Your task to perform on an android device: turn on notifications settings in the gmail app Image 0: 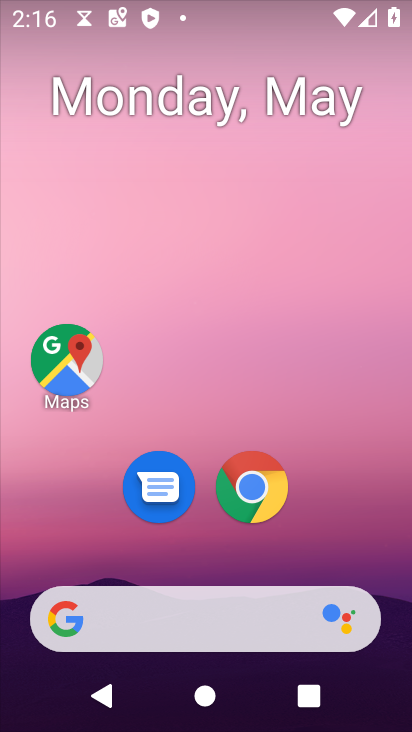
Step 0: click (349, 134)
Your task to perform on an android device: turn on notifications settings in the gmail app Image 1: 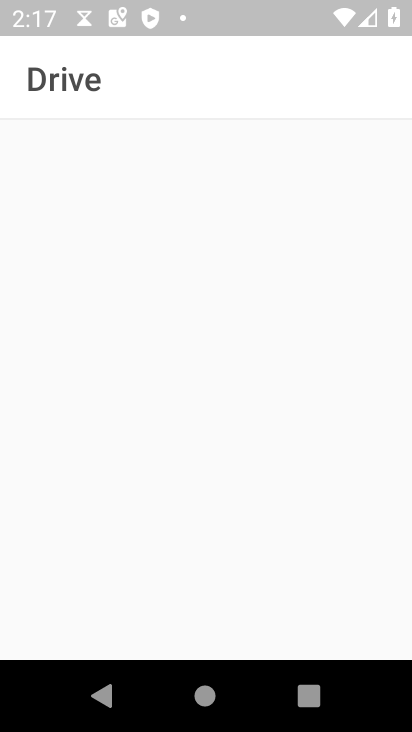
Step 1: press home button
Your task to perform on an android device: turn on notifications settings in the gmail app Image 2: 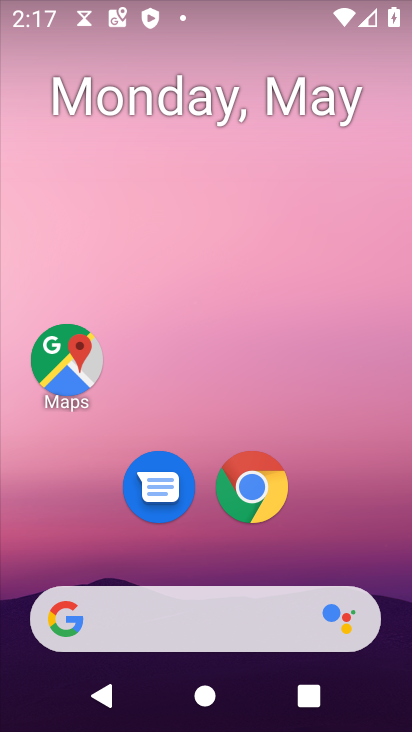
Step 2: drag from (368, 470) to (348, 152)
Your task to perform on an android device: turn on notifications settings in the gmail app Image 3: 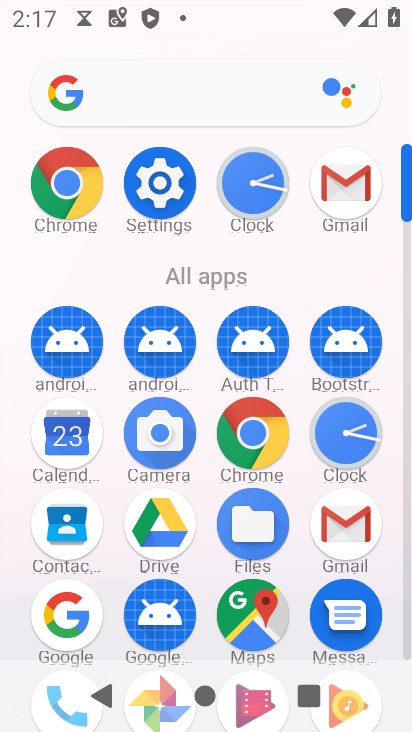
Step 3: click (349, 177)
Your task to perform on an android device: turn on notifications settings in the gmail app Image 4: 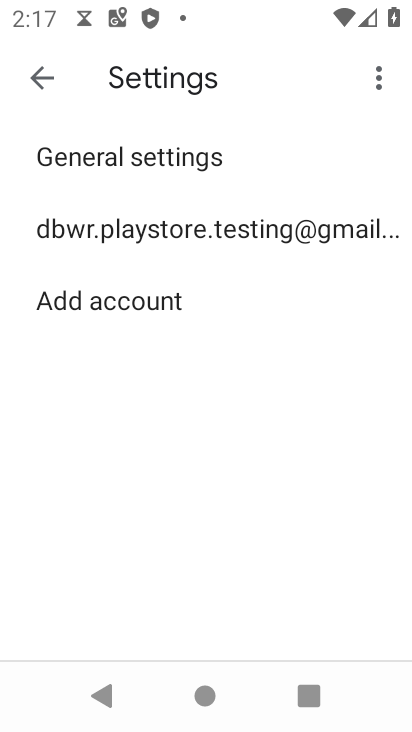
Step 4: click (337, 234)
Your task to perform on an android device: turn on notifications settings in the gmail app Image 5: 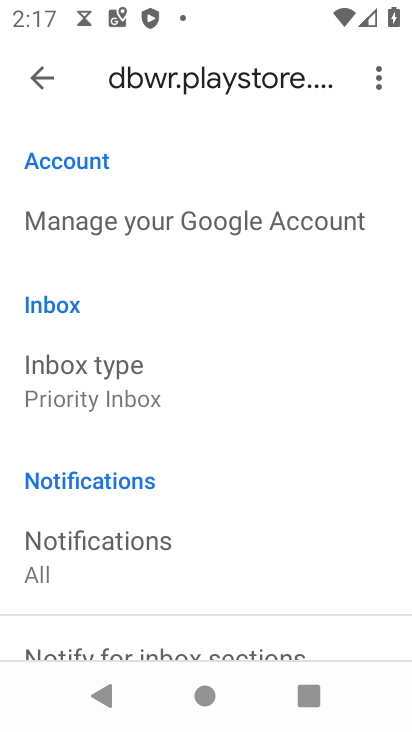
Step 5: drag from (271, 572) to (235, 218)
Your task to perform on an android device: turn on notifications settings in the gmail app Image 6: 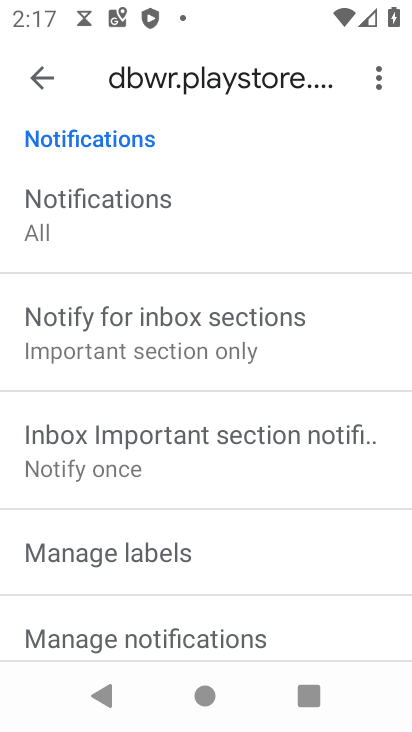
Step 6: click (250, 640)
Your task to perform on an android device: turn on notifications settings in the gmail app Image 7: 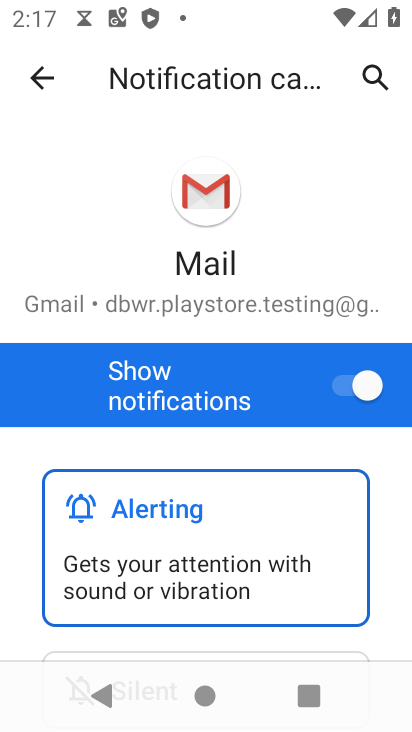
Step 7: task complete